Your task to perform on an android device: move an email to a new category in the gmail app Image 0: 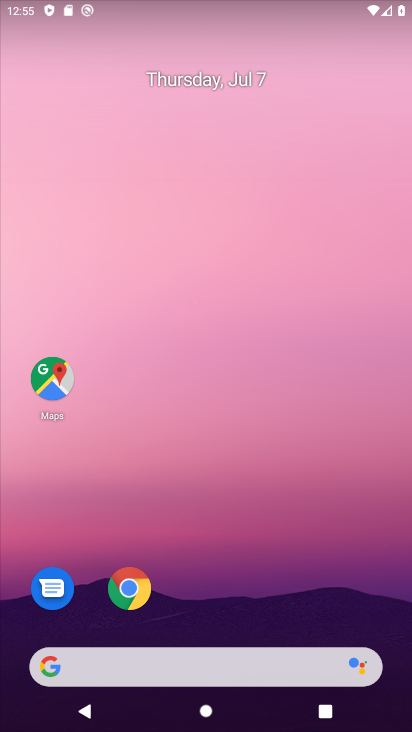
Step 0: drag from (166, 667) to (270, 93)
Your task to perform on an android device: move an email to a new category in the gmail app Image 1: 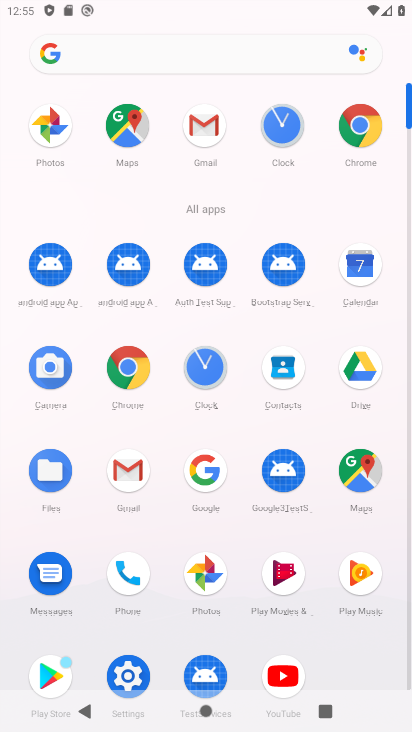
Step 1: click (123, 482)
Your task to perform on an android device: move an email to a new category in the gmail app Image 2: 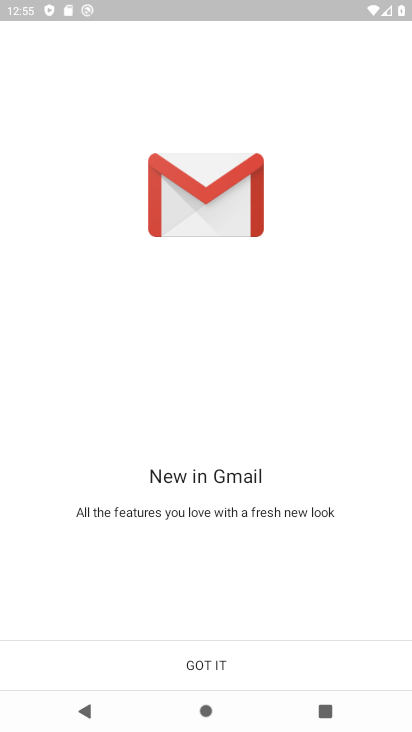
Step 2: click (189, 655)
Your task to perform on an android device: move an email to a new category in the gmail app Image 3: 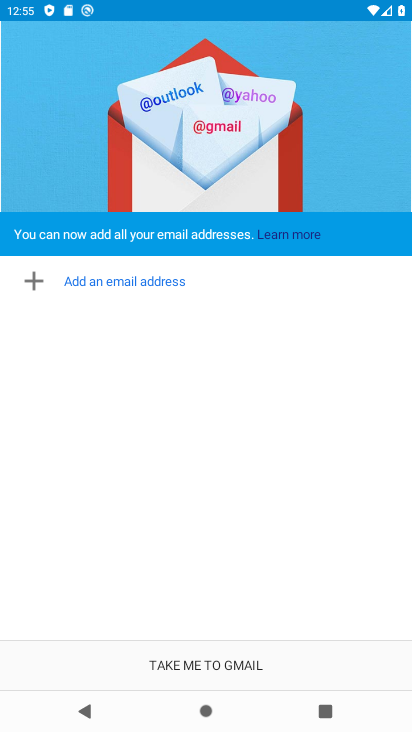
Step 3: click (189, 655)
Your task to perform on an android device: move an email to a new category in the gmail app Image 4: 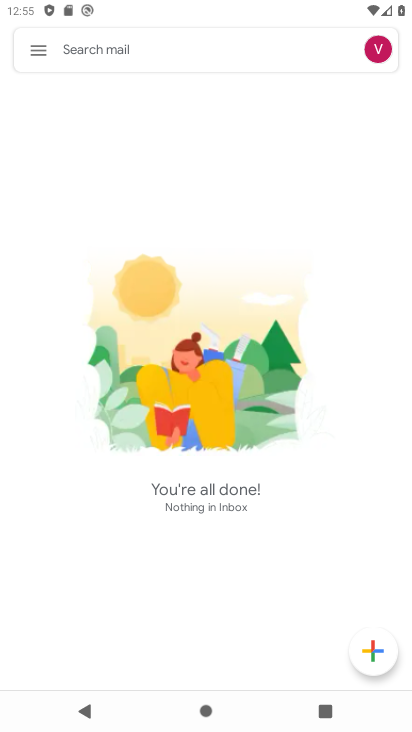
Step 4: task complete